Your task to perform on an android device: Open ESPN.com Image 0: 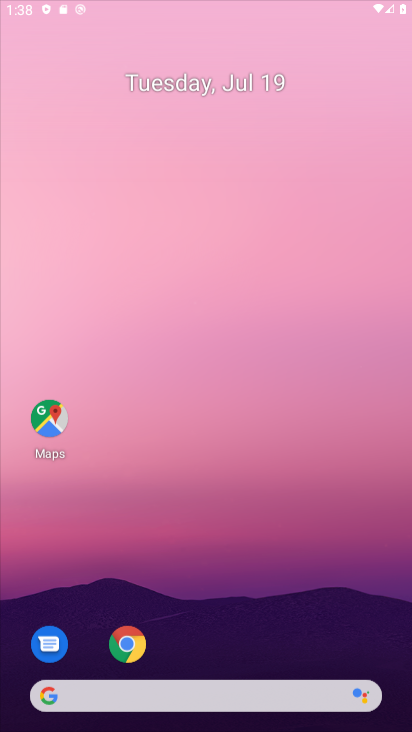
Step 0: press back button
Your task to perform on an android device: Open ESPN.com Image 1: 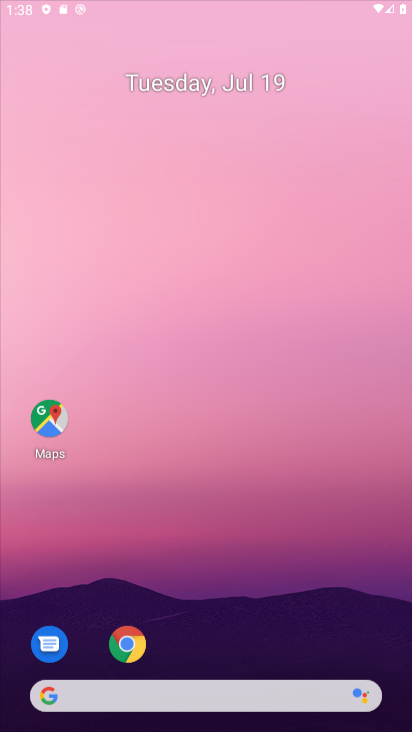
Step 1: drag from (220, 341) to (163, 137)
Your task to perform on an android device: Open ESPN.com Image 2: 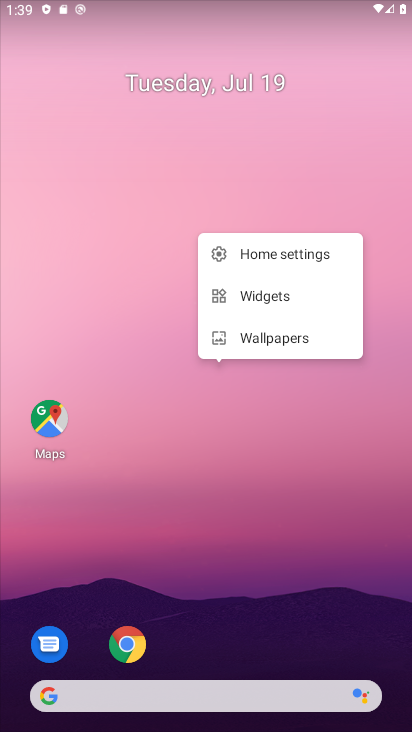
Step 2: drag from (202, 502) to (140, 78)
Your task to perform on an android device: Open ESPN.com Image 3: 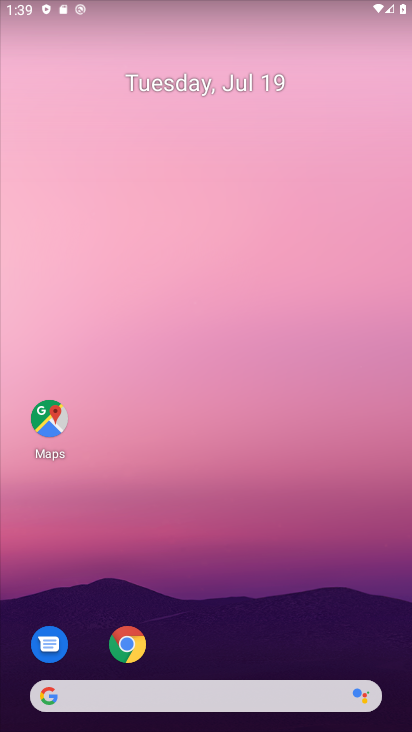
Step 3: drag from (221, 416) to (191, 122)
Your task to perform on an android device: Open ESPN.com Image 4: 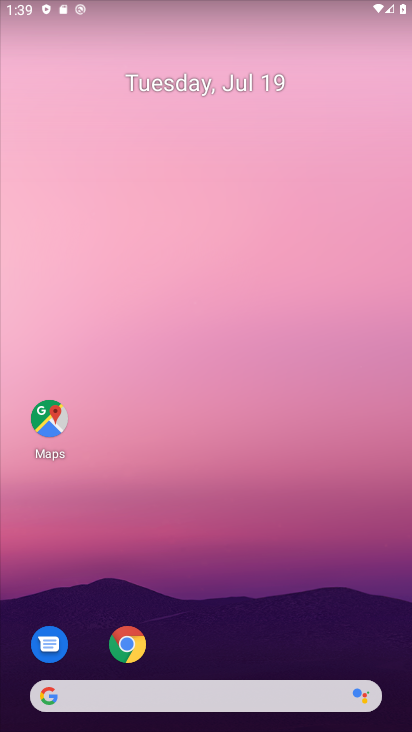
Step 4: drag from (241, 554) to (195, 191)
Your task to perform on an android device: Open ESPN.com Image 5: 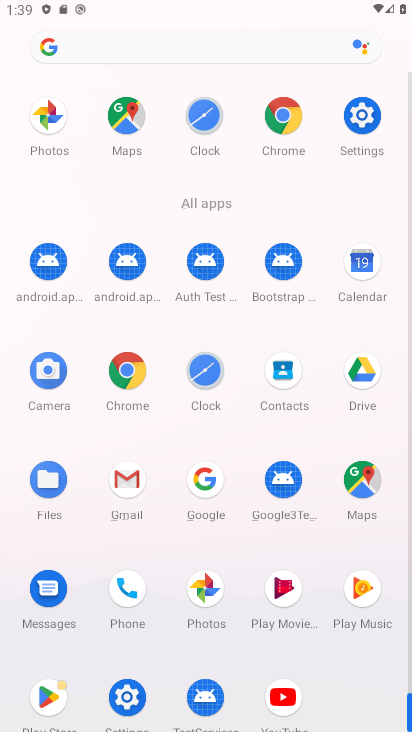
Step 5: drag from (252, 644) to (187, 182)
Your task to perform on an android device: Open ESPN.com Image 6: 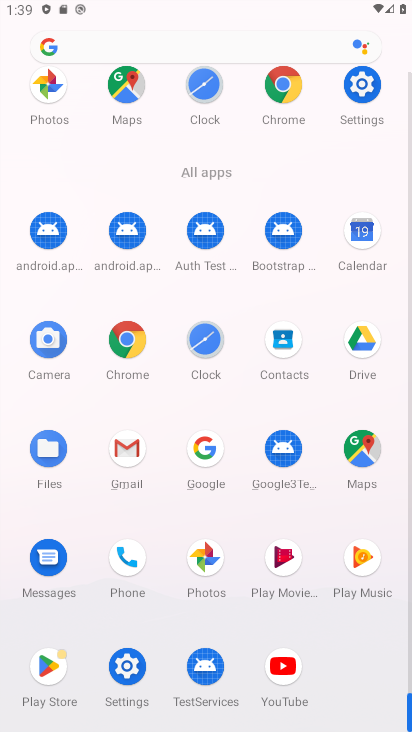
Step 6: click (122, 337)
Your task to perform on an android device: Open ESPN.com Image 7: 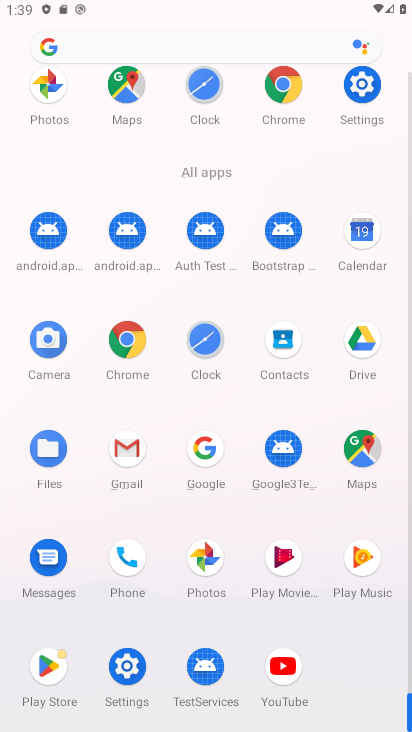
Step 7: click (122, 337)
Your task to perform on an android device: Open ESPN.com Image 8: 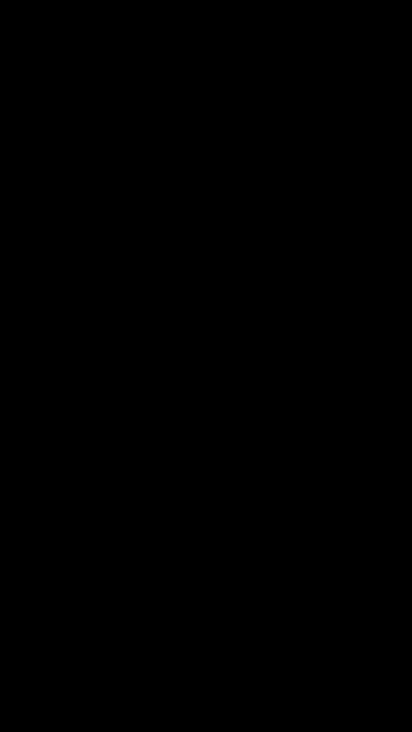
Step 8: click (125, 335)
Your task to perform on an android device: Open ESPN.com Image 9: 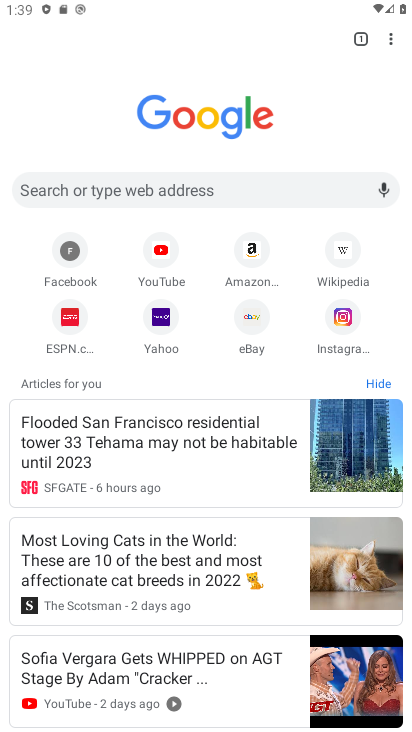
Step 9: click (71, 310)
Your task to perform on an android device: Open ESPN.com Image 10: 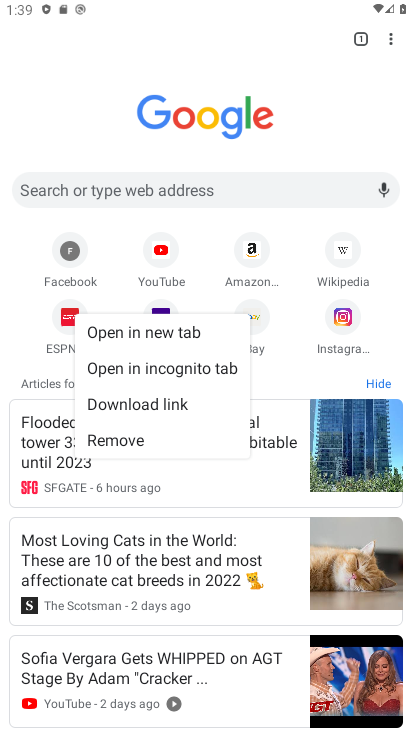
Step 10: click (70, 311)
Your task to perform on an android device: Open ESPN.com Image 11: 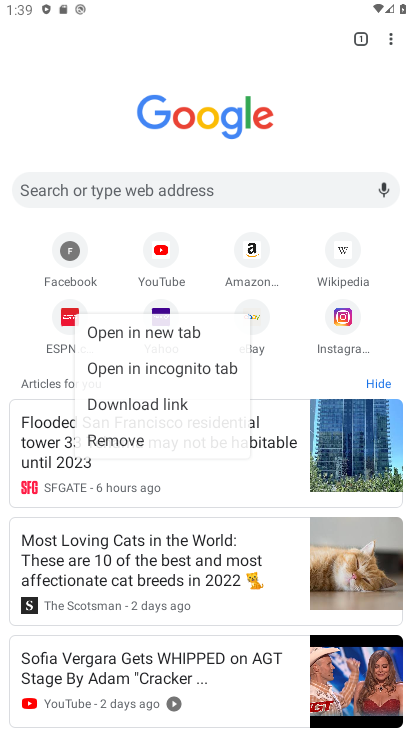
Step 11: click (70, 311)
Your task to perform on an android device: Open ESPN.com Image 12: 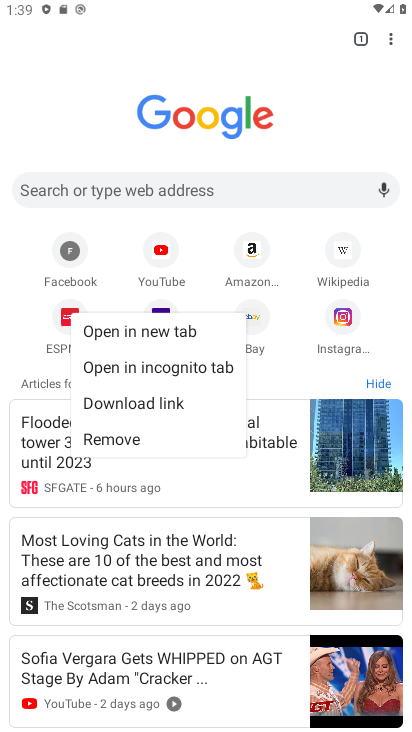
Step 12: click (70, 309)
Your task to perform on an android device: Open ESPN.com Image 13: 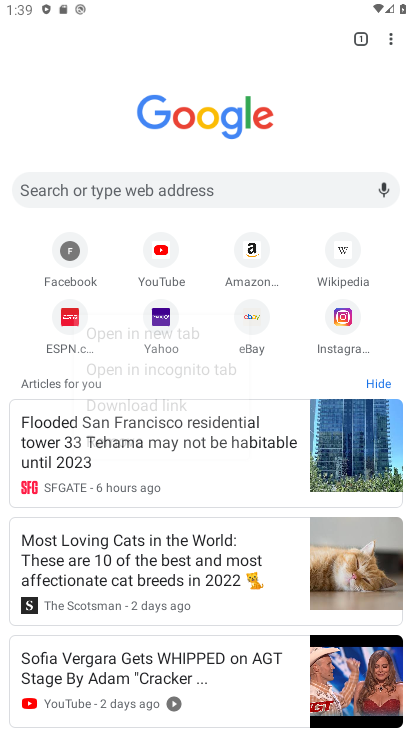
Step 13: click (68, 320)
Your task to perform on an android device: Open ESPN.com Image 14: 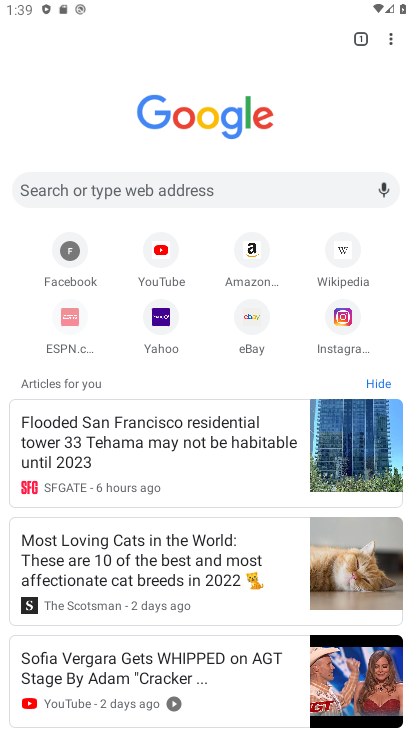
Step 14: click (68, 325)
Your task to perform on an android device: Open ESPN.com Image 15: 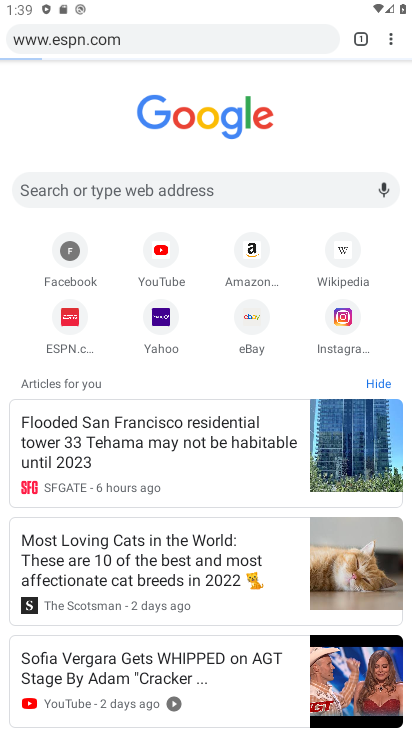
Step 15: click (69, 322)
Your task to perform on an android device: Open ESPN.com Image 16: 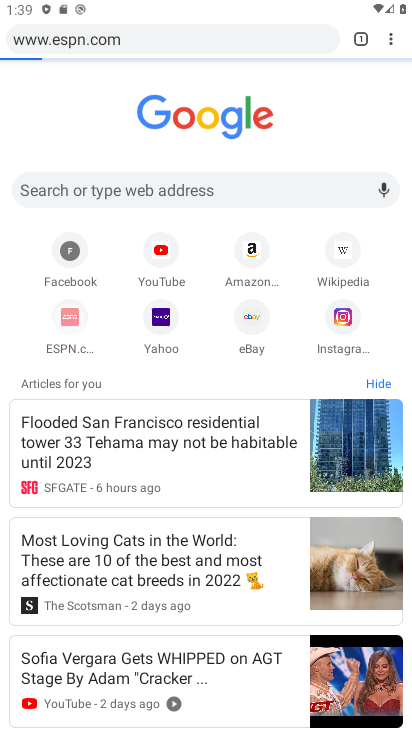
Step 16: click (63, 326)
Your task to perform on an android device: Open ESPN.com Image 17: 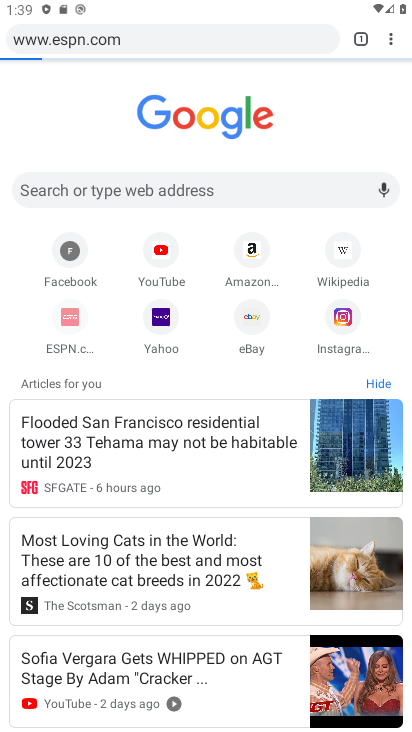
Step 17: click (68, 324)
Your task to perform on an android device: Open ESPN.com Image 18: 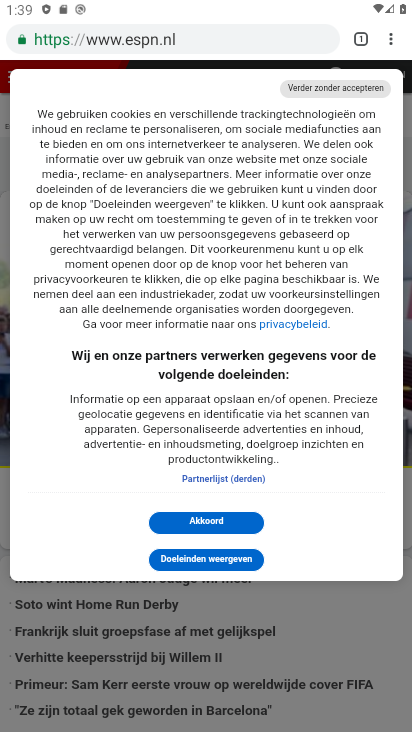
Step 18: task complete